Your task to perform on an android device: Toggle the flashlight Image 0: 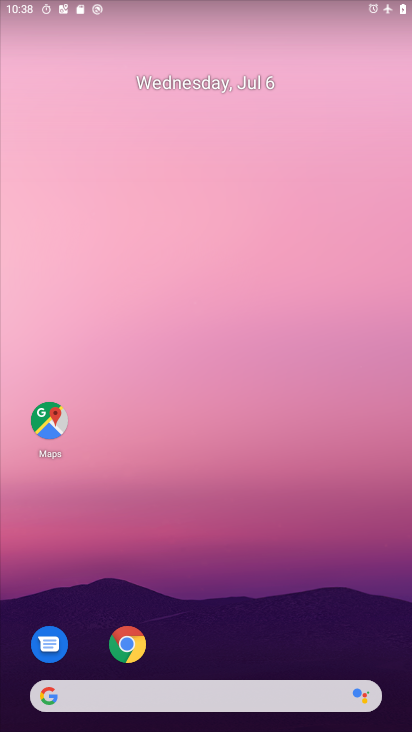
Step 0: drag from (193, 679) to (212, 155)
Your task to perform on an android device: Toggle the flashlight Image 1: 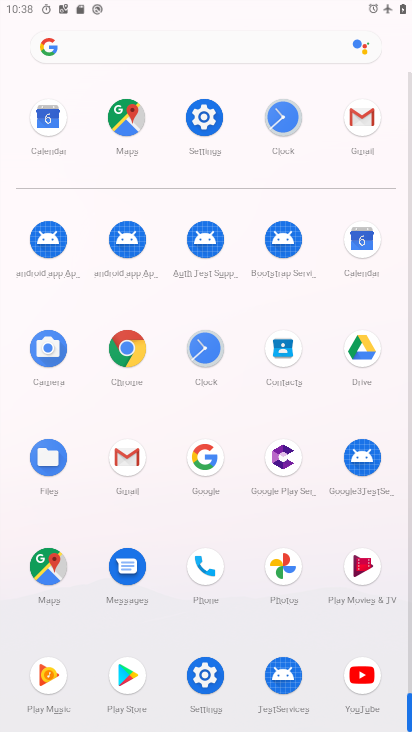
Step 1: task complete